Your task to perform on an android device: toggle sleep mode Image 0: 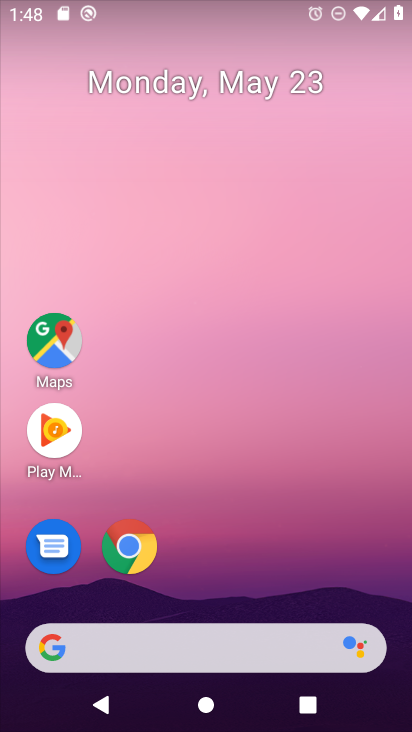
Step 0: drag from (193, 588) to (207, 0)
Your task to perform on an android device: toggle sleep mode Image 1: 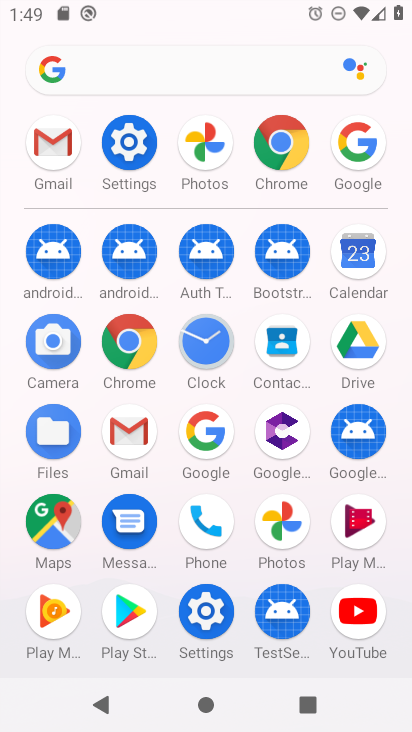
Step 1: click (132, 142)
Your task to perform on an android device: toggle sleep mode Image 2: 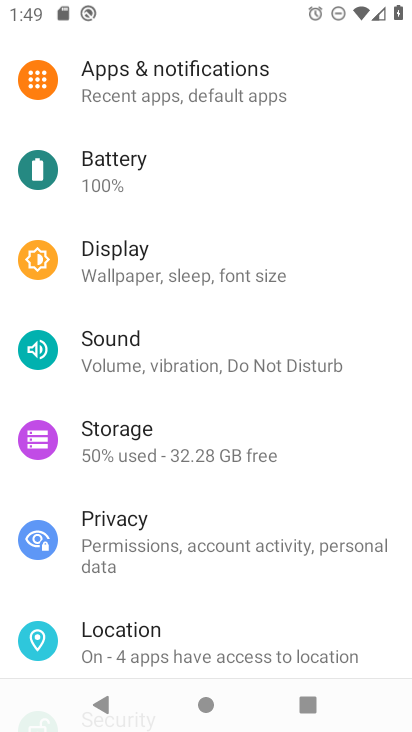
Step 2: click (143, 281)
Your task to perform on an android device: toggle sleep mode Image 3: 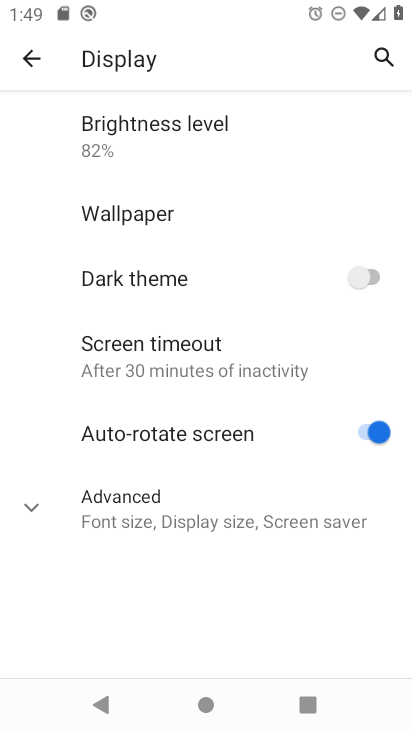
Step 3: task complete